Your task to perform on an android device: Go to Google maps Image 0: 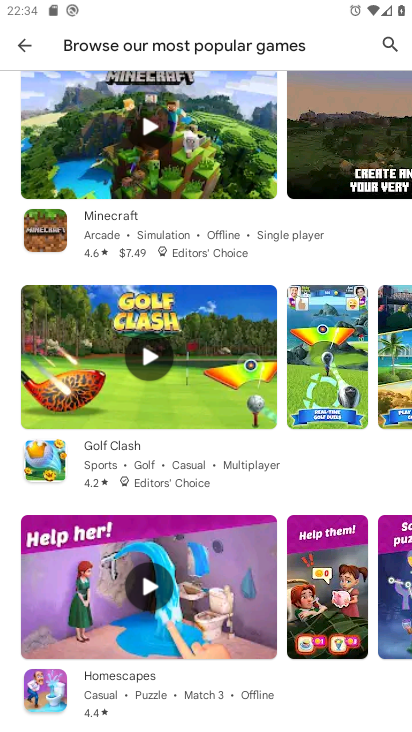
Step 0: press home button
Your task to perform on an android device: Go to Google maps Image 1: 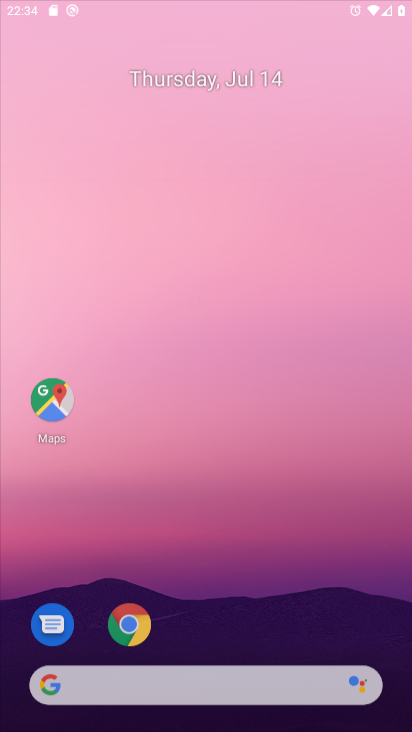
Step 1: drag from (203, 535) to (215, 150)
Your task to perform on an android device: Go to Google maps Image 2: 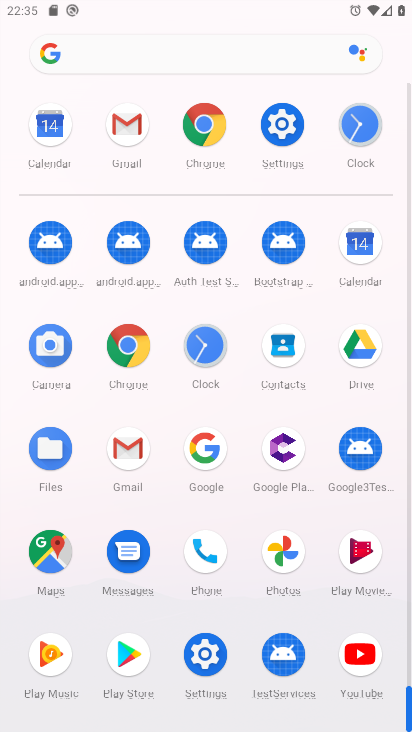
Step 2: click (48, 548)
Your task to perform on an android device: Go to Google maps Image 3: 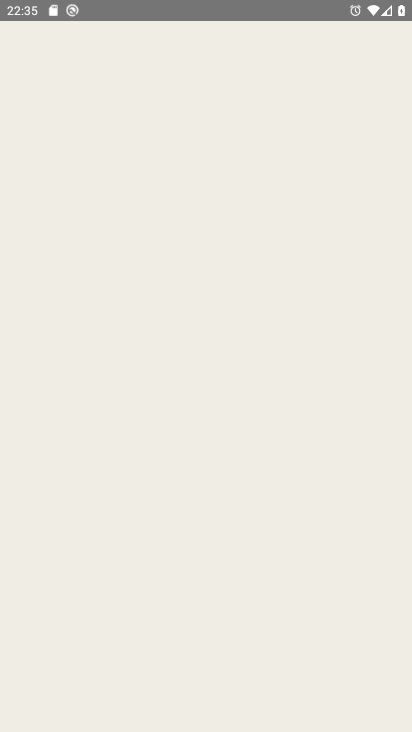
Step 3: drag from (196, 191) to (188, 596)
Your task to perform on an android device: Go to Google maps Image 4: 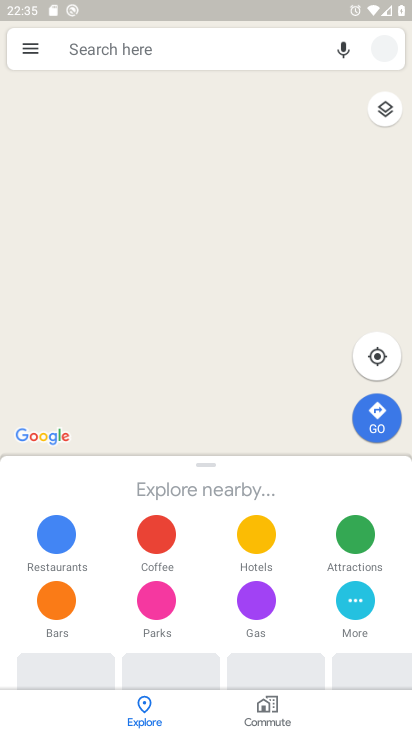
Step 4: click (170, 47)
Your task to perform on an android device: Go to Google maps Image 5: 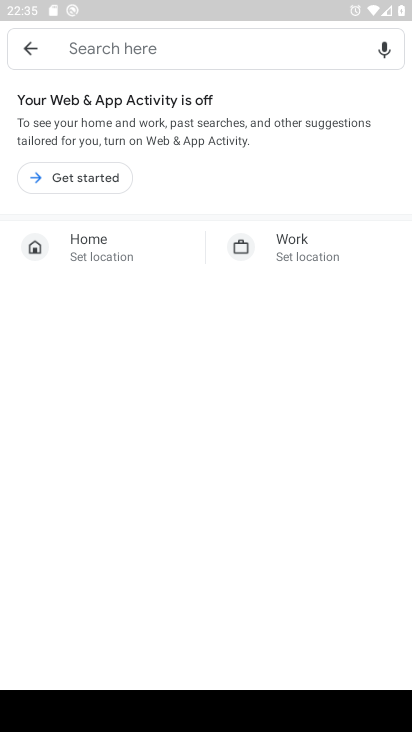
Step 5: click (25, 45)
Your task to perform on an android device: Go to Google maps Image 6: 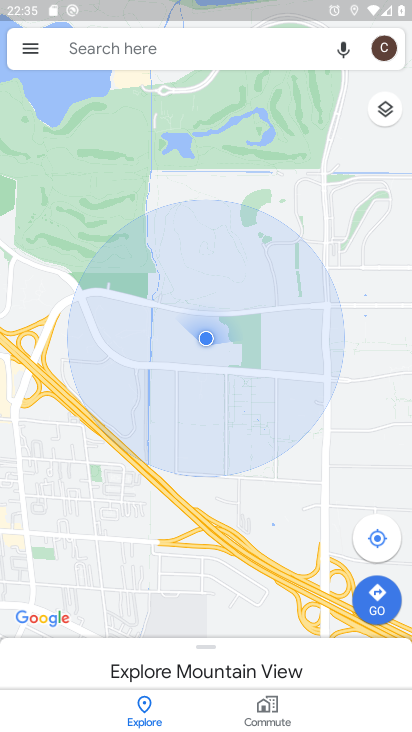
Step 6: task complete